Your task to perform on an android device: turn pop-ups on in chrome Image 0: 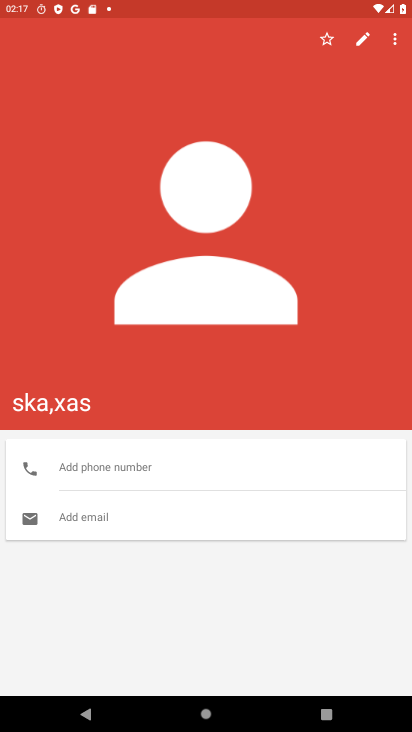
Step 0: press home button
Your task to perform on an android device: turn pop-ups on in chrome Image 1: 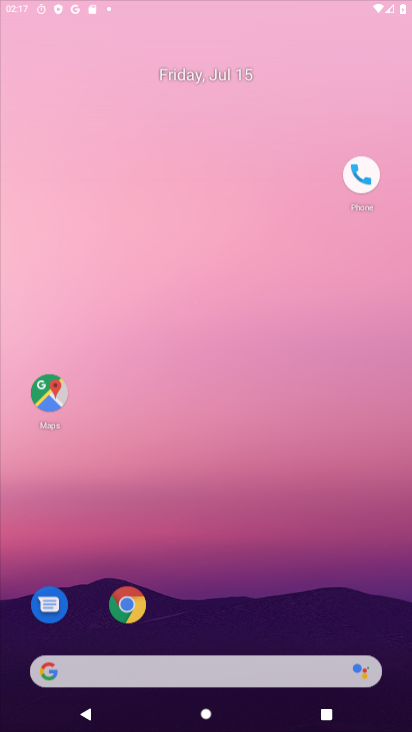
Step 1: drag from (216, 485) to (233, 45)
Your task to perform on an android device: turn pop-ups on in chrome Image 2: 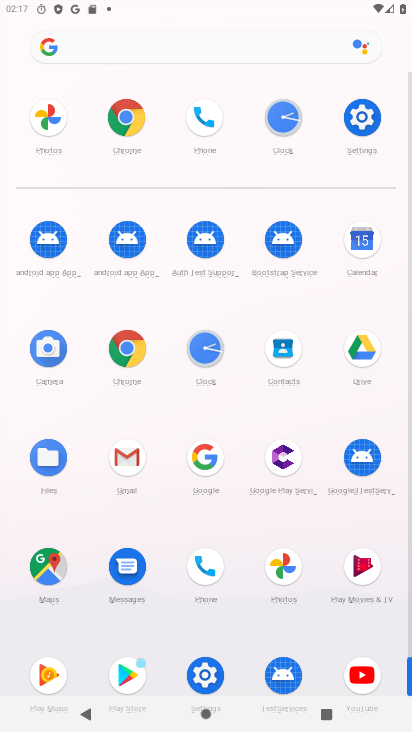
Step 2: click (133, 353)
Your task to perform on an android device: turn pop-ups on in chrome Image 3: 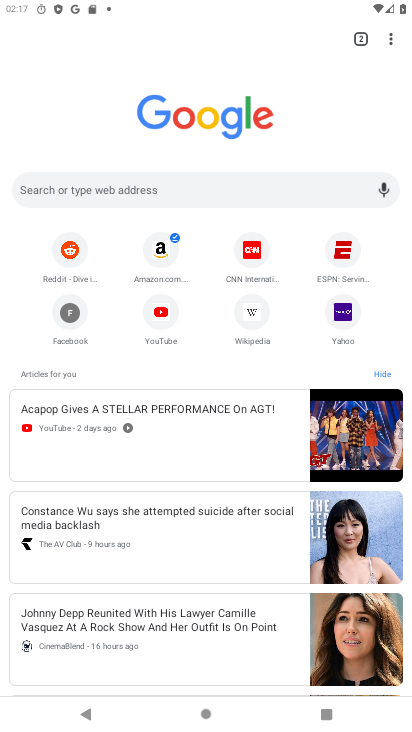
Step 3: click (379, 37)
Your task to perform on an android device: turn pop-ups on in chrome Image 4: 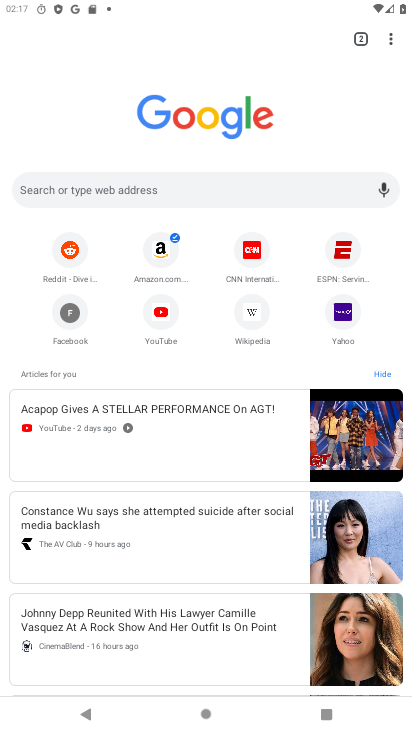
Step 4: drag from (390, 41) to (251, 325)
Your task to perform on an android device: turn pop-ups on in chrome Image 5: 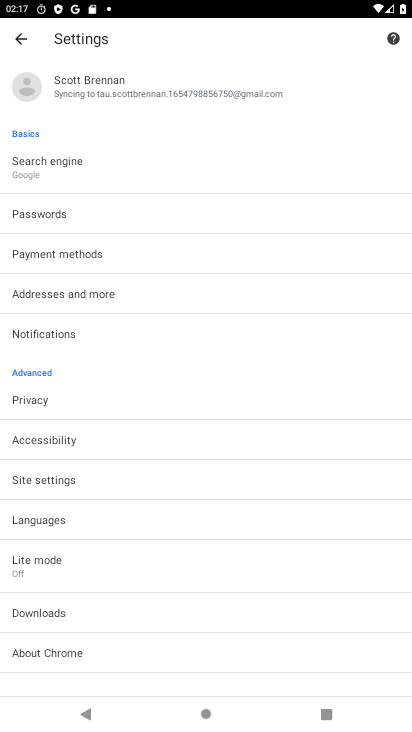
Step 5: drag from (192, 613) to (237, 365)
Your task to perform on an android device: turn pop-ups on in chrome Image 6: 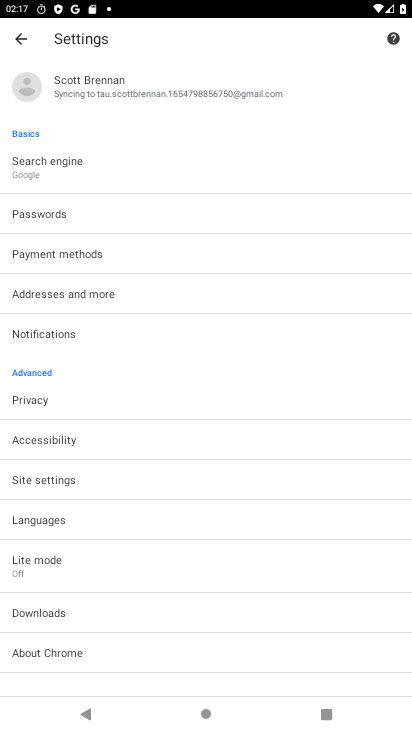
Step 6: drag from (119, 614) to (225, 234)
Your task to perform on an android device: turn pop-ups on in chrome Image 7: 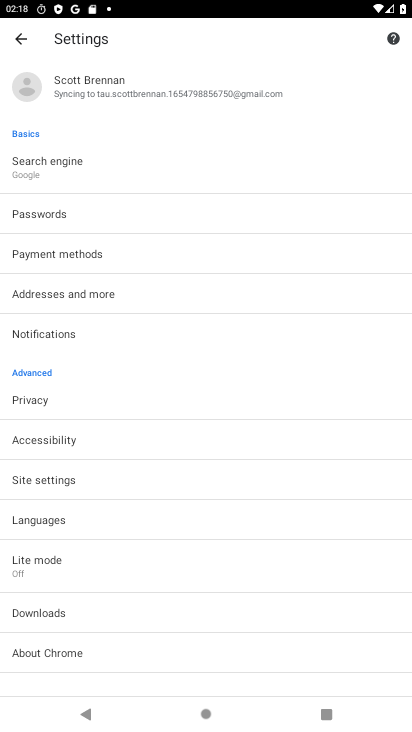
Step 7: click (81, 486)
Your task to perform on an android device: turn pop-ups on in chrome Image 8: 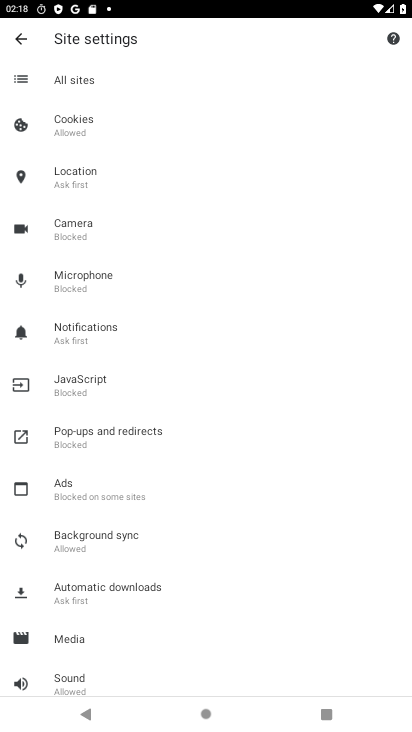
Step 8: click (124, 427)
Your task to perform on an android device: turn pop-ups on in chrome Image 9: 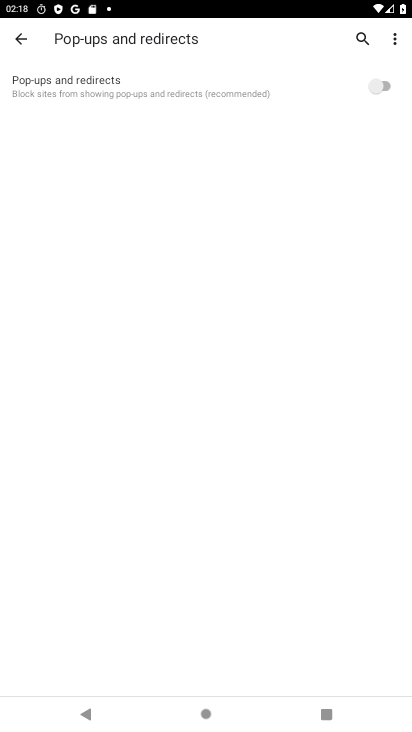
Step 9: drag from (171, 553) to (196, 310)
Your task to perform on an android device: turn pop-ups on in chrome Image 10: 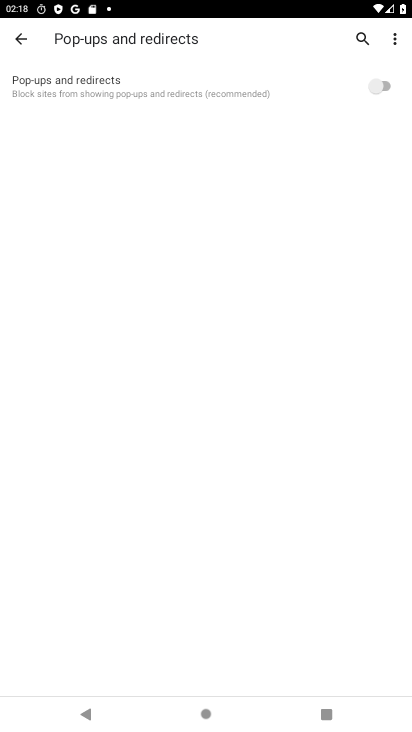
Step 10: click (348, 86)
Your task to perform on an android device: turn pop-ups on in chrome Image 11: 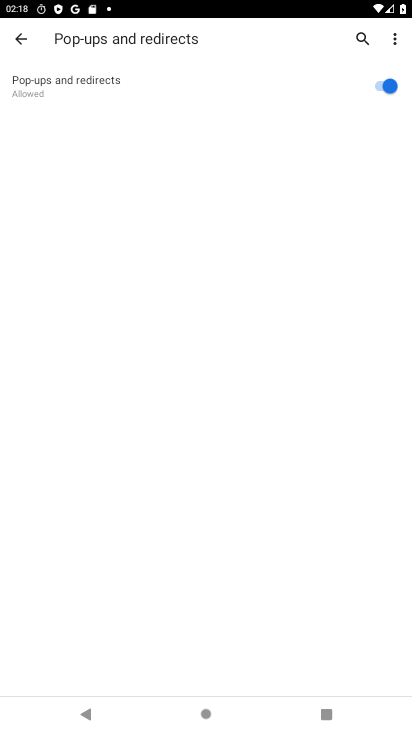
Step 11: task complete